Your task to perform on an android device: move a message to another label in the gmail app Image 0: 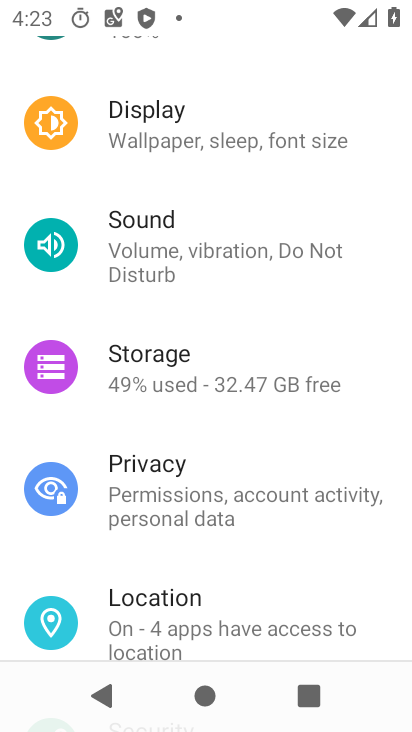
Step 0: press home button
Your task to perform on an android device: move a message to another label in the gmail app Image 1: 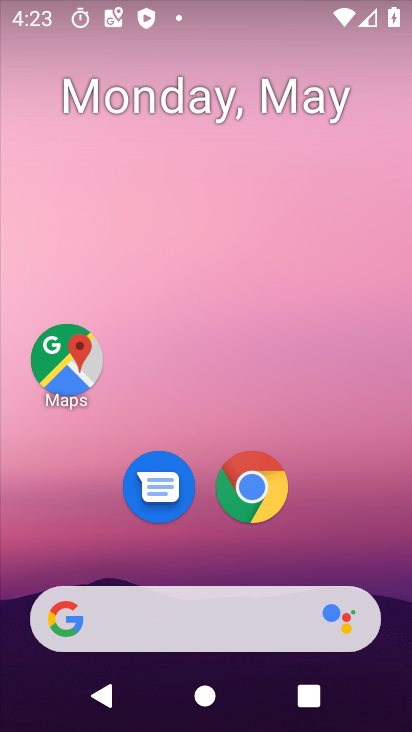
Step 1: drag from (121, 574) to (151, 298)
Your task to perform on an android device: move a message to another label in the gmail app Image 2: 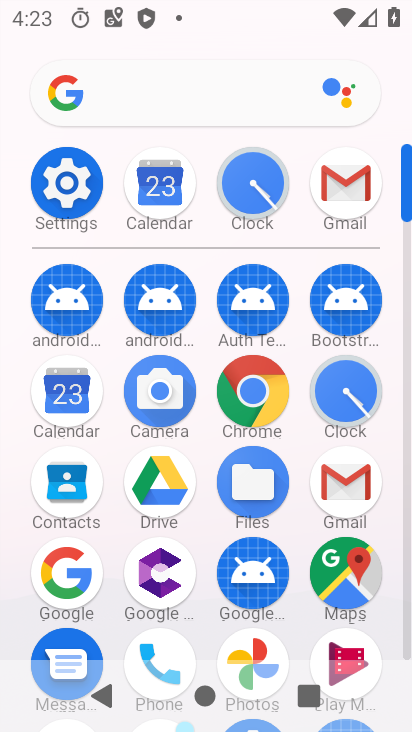
Step 2: click (355, 184)
Your task to perform on an android device: move a message to another label in the gmail app Image 3: 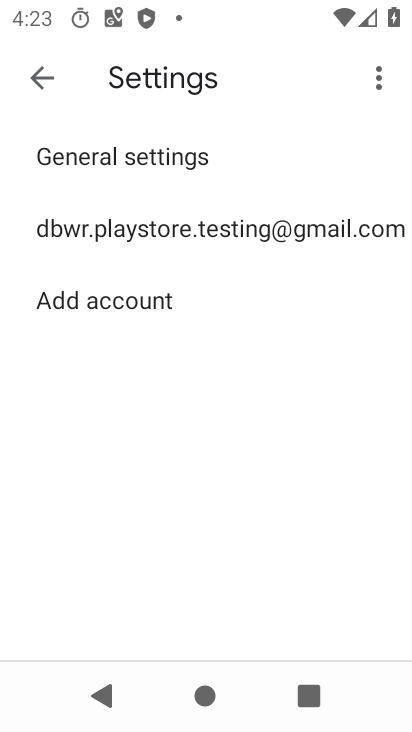
Step 3: click (36, 82)
Your task to perform on an android device: move a message to another label in the gmail app Image 4: 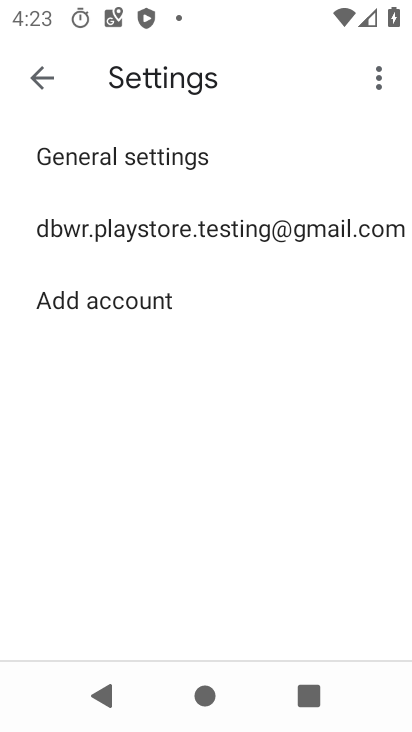
Step 4: click (37, 81)
Your task to perform on an android device: move a message to another label in the gmail app Image 5: 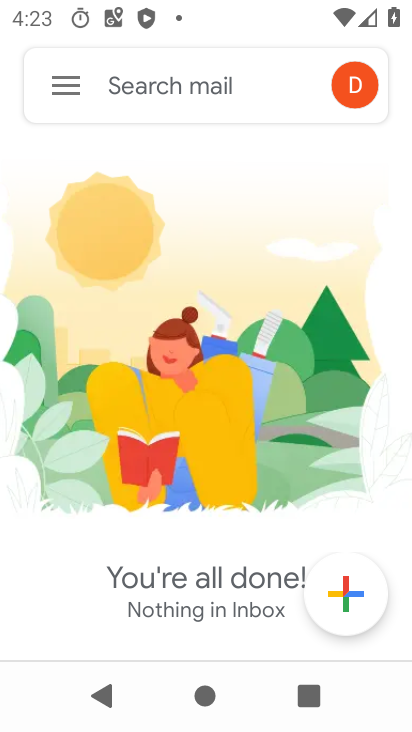
Step 5: task complete